Your task to perform on an android device: turn off priority inbox in the gmail app Image 0: 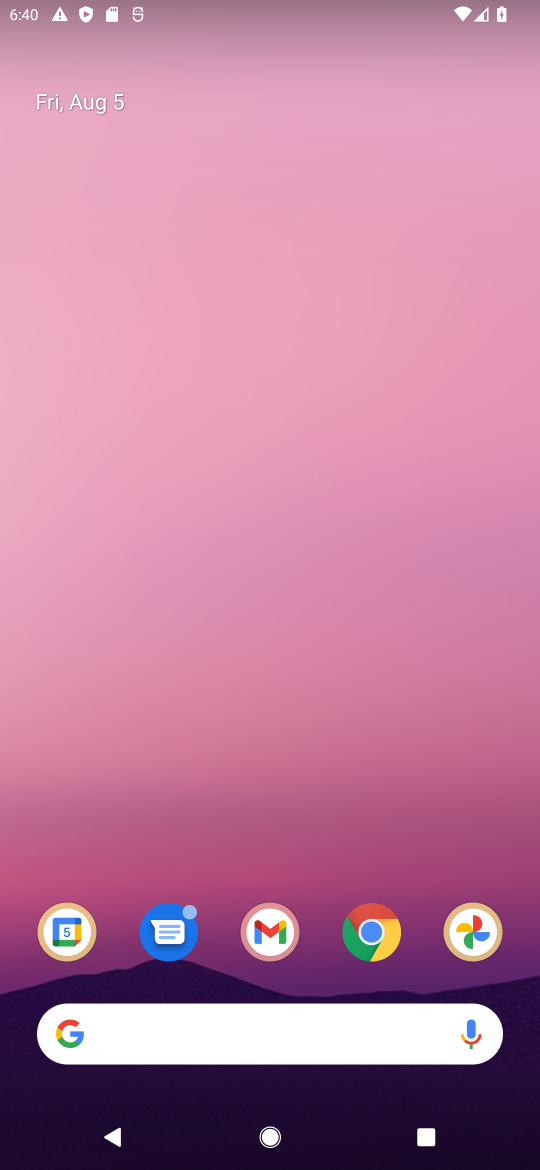
Step 0: drag from (204, 1026) to (312, 110)
Your task to perform on an android device: turn off priority inbox in the gmail app Image 1: 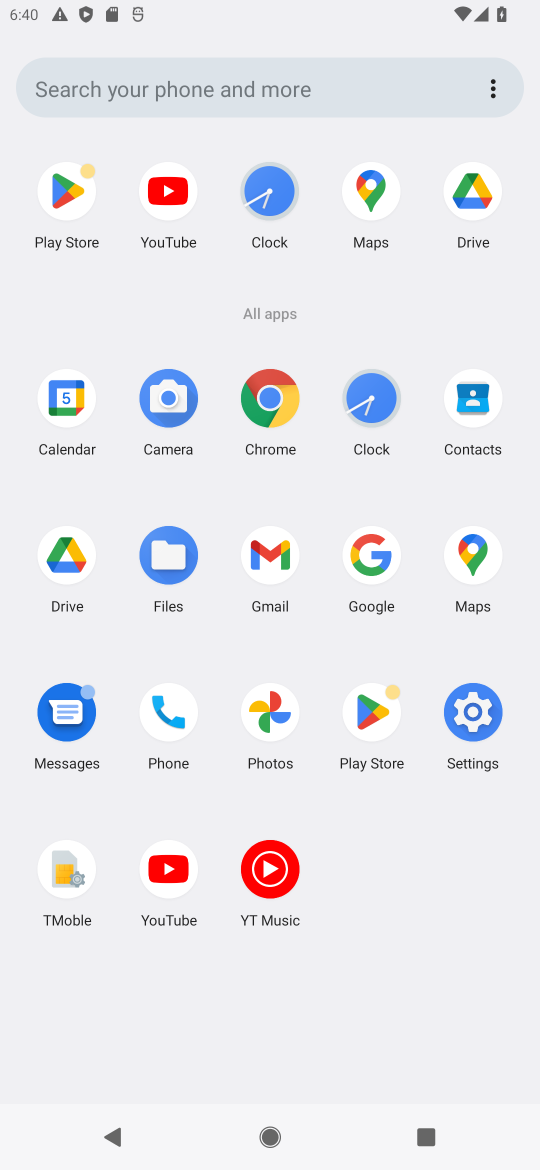
Step 1: click (260, 548)
Your task to perform on an android device: turn off priority inbox in the gmail app Image 2: 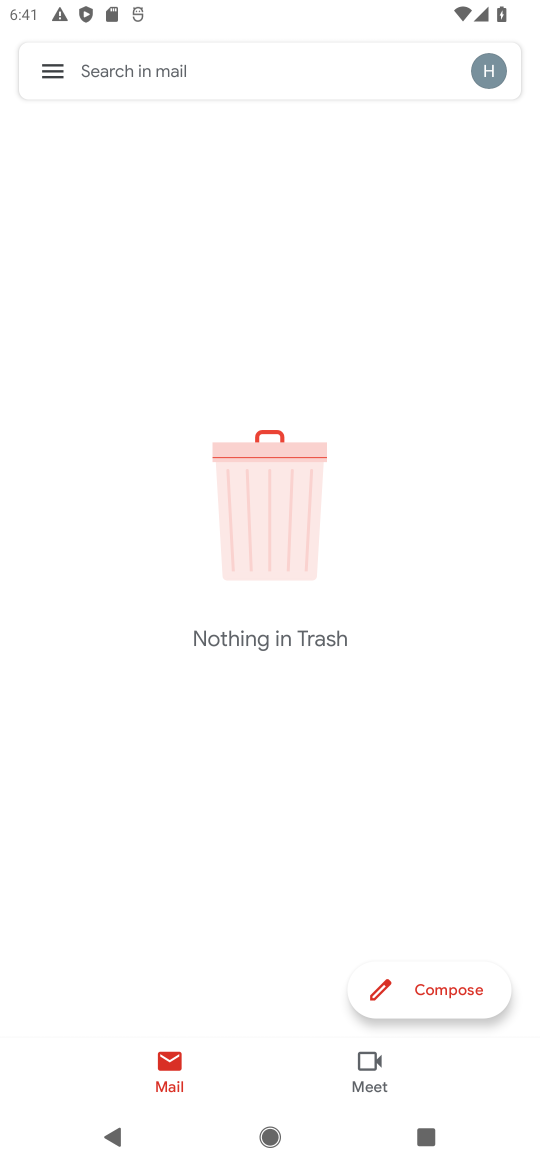
Step 2: click (55, 70)
Your task to perform on an android device: turn off priority inbox in the gmail app Image 3: 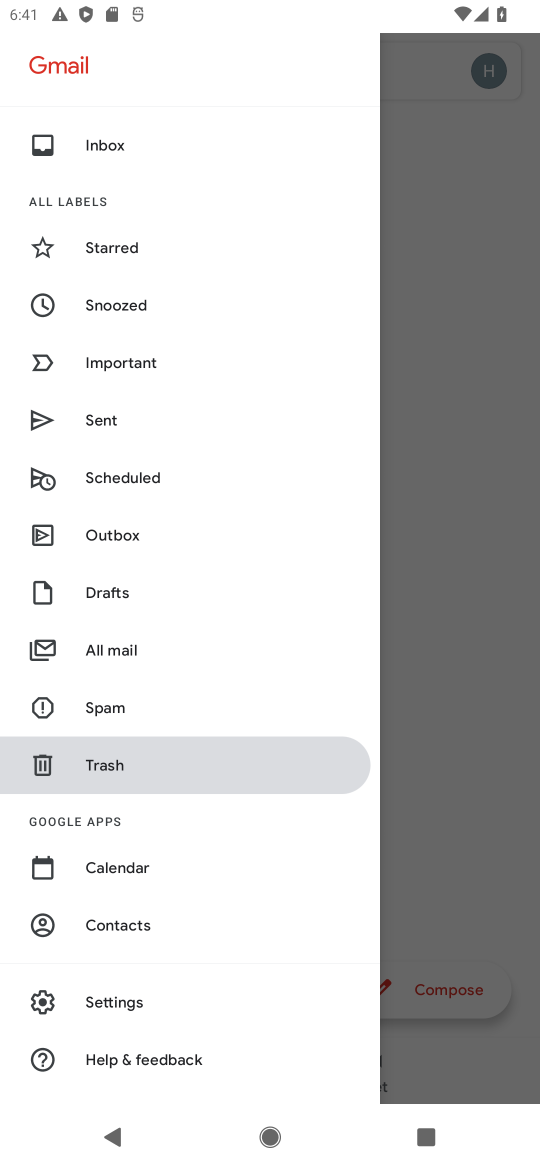
Step 3: click (107, 1010)
Your task to perform on an android device: turn off priority inbox in the gmail app Image 4: 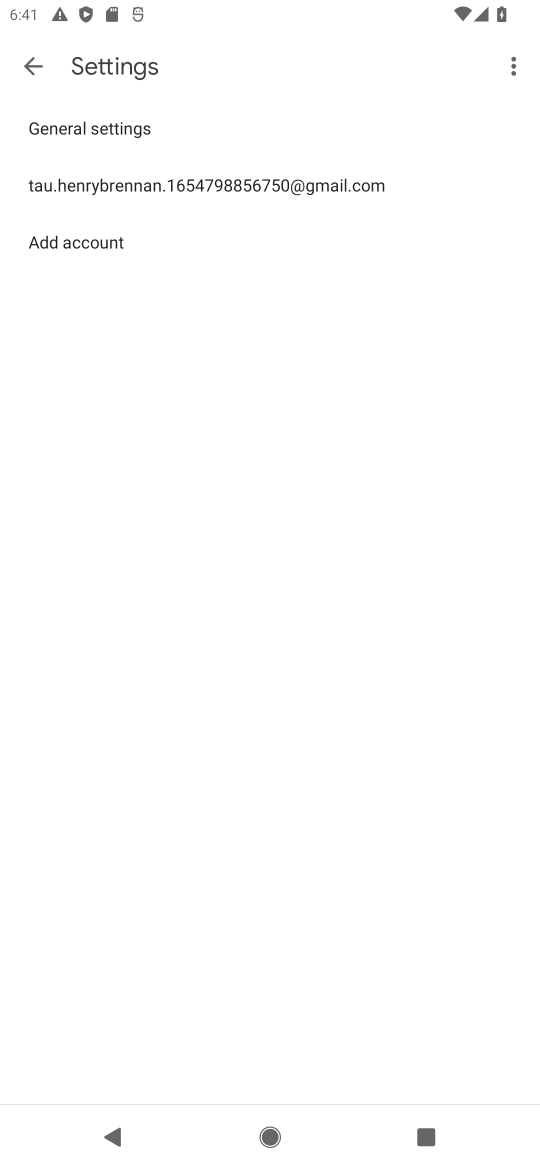
Step 4: click (208, 189)
Your task to perform on an android device: turn off priority inbox in the gmail app Image 5: 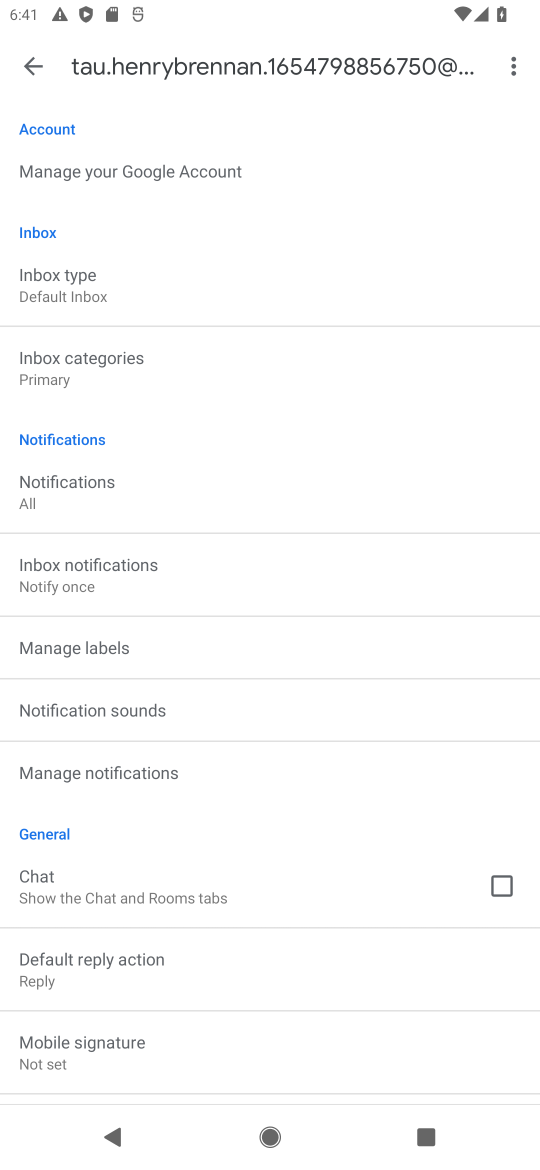
Step 5: task complete